Your task to perform on an android device: stop showing notifications on the lock screen Image 0: 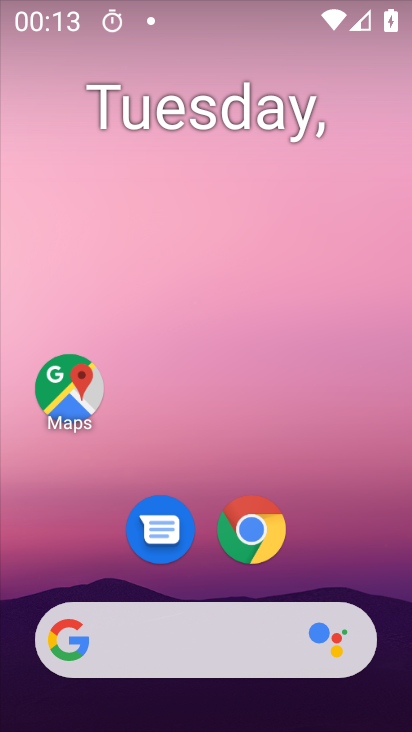
Step 0: drag from (347, 532) to (288, 59)
Your task to perform on an android device: stop showing notifications on the lock screen Image 1: 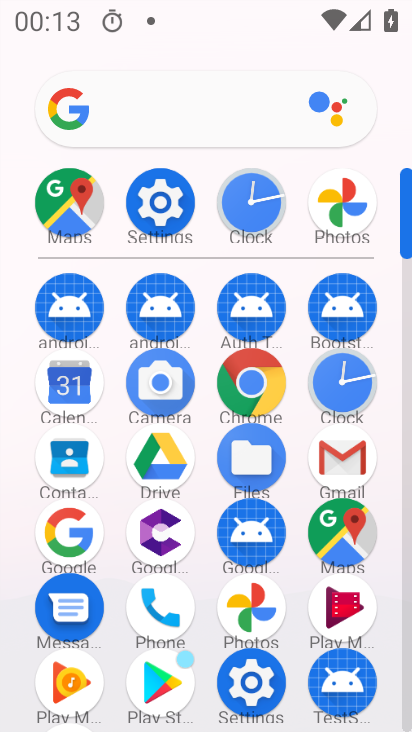
Step 1: click (172, 174)
Your task to perform on an android device: stop showing notifications on the lock screen Image 2: 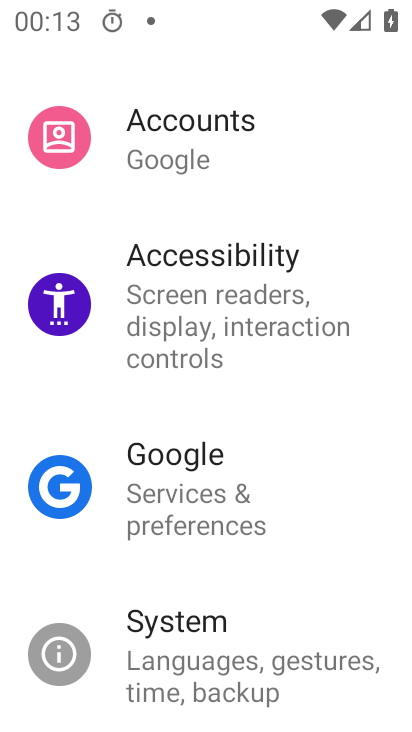
Step 2: drag from (184, 120) to (196, 678)
Your task to perform on an android device: stop showing notifications on the lock screen Image 3: 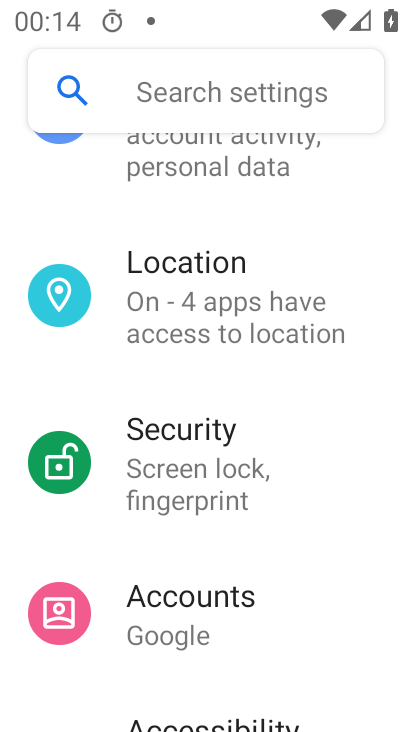
Step 3: drag from (239, 138) to (247, 647)
Your task to perform on an android device: stop showing notifications on the lock screen Image 4: 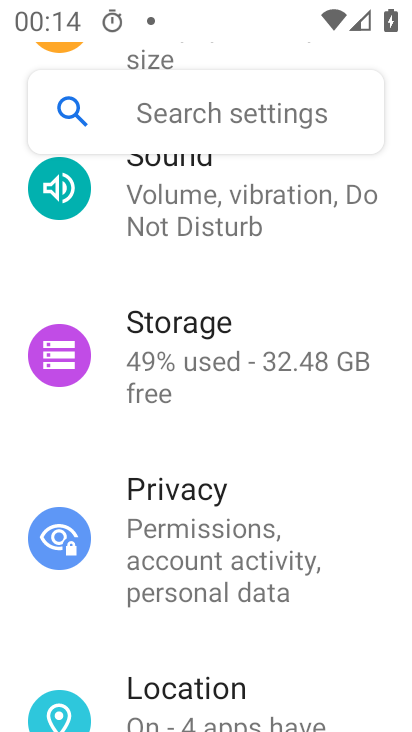
Step 4: drag from (256, 161) to (264, 679)
Your task to perform on an android device: stop showing notifications on the lock screen Image 5: 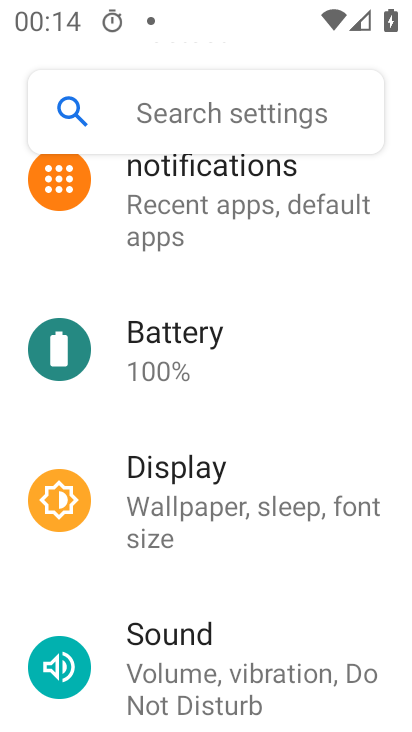
Step 5: drag from (207, 261) to (195, 571)
Your task to perform on an android device: stop showing notifications on the lock screen Image 6: 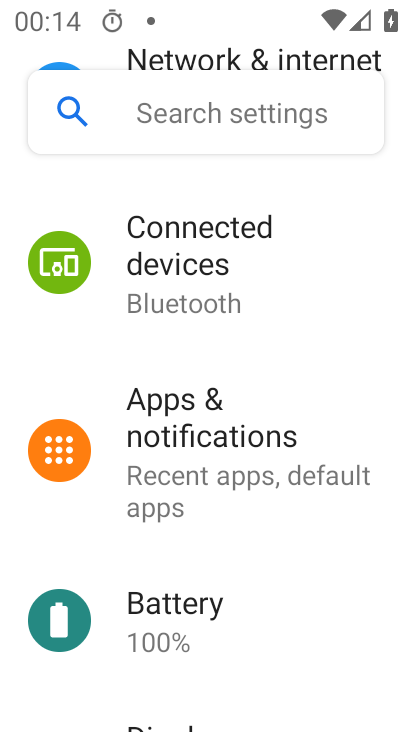
Step 6: click (178, 359)
Your task to perform on an android device: stop showing notifications on the lock screen Image 7: 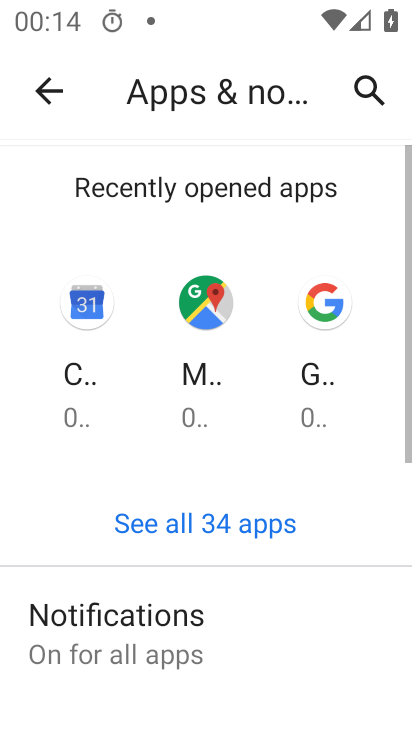
Step 7: click (149, 630)
Your task to perform on an android device: stop showing notifications on the lock screen Image 8: 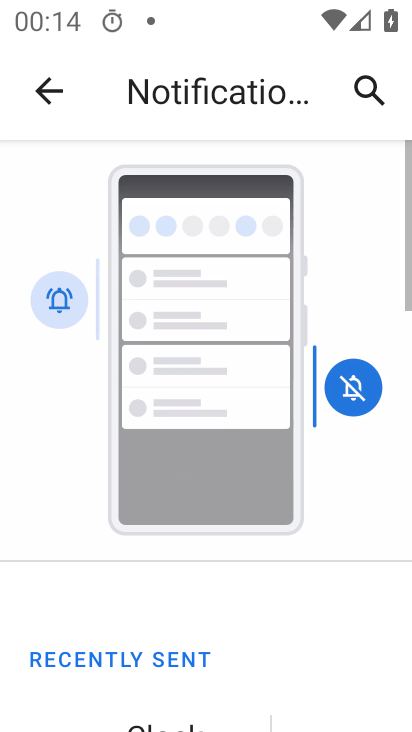
Step 8: drag from (234, 627) to (259, 81)
Your task to perform on an android device: stop showing notifications on the lock screen Image 9: 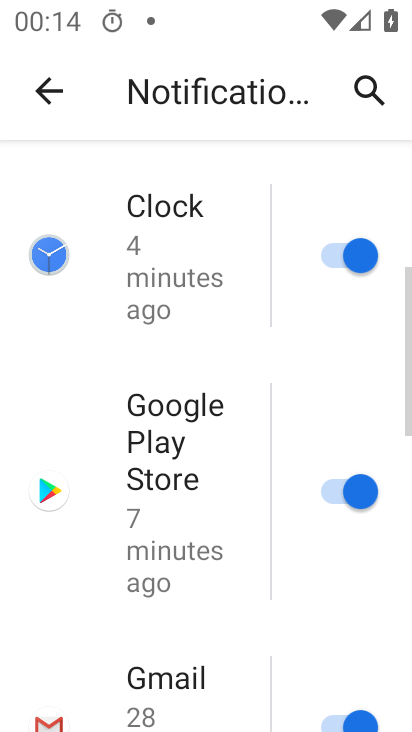
Step 9: drag from (266, 538) to (287, 60)
Your task to perform on an android device: stop showing notifications on the lock screen Image 10: 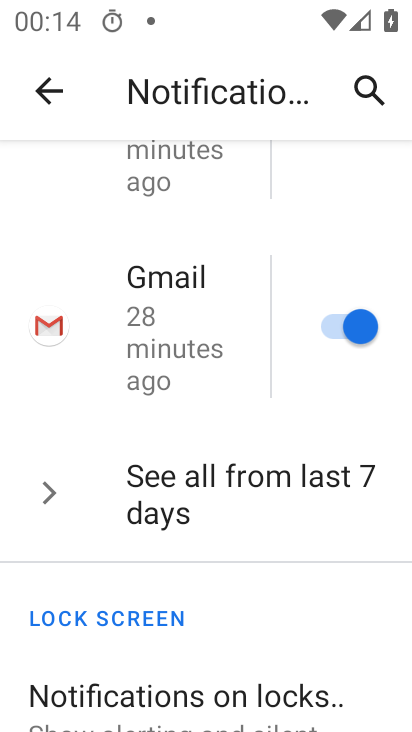
Step 10: click (215, 687)
Your task to perform on an android device: stop showing notifications on the lock screen Image 11: 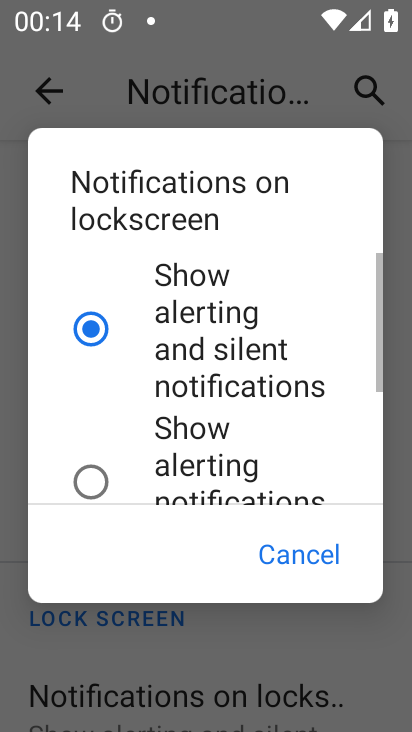
Step 11: drag from (248, 455) to (291, 217)
Your task to perform on an android device: stop showing notifications on the lock screen Image 12: 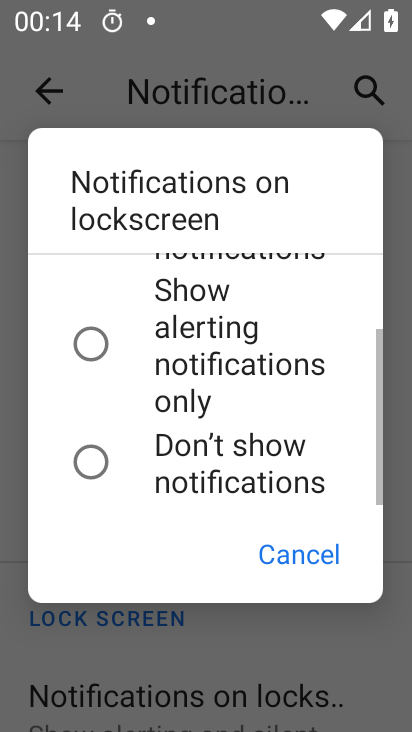
Step 12: click (260, 481)
Your task to perform on an android device: stop showing notifications on the lock screen Image 13: 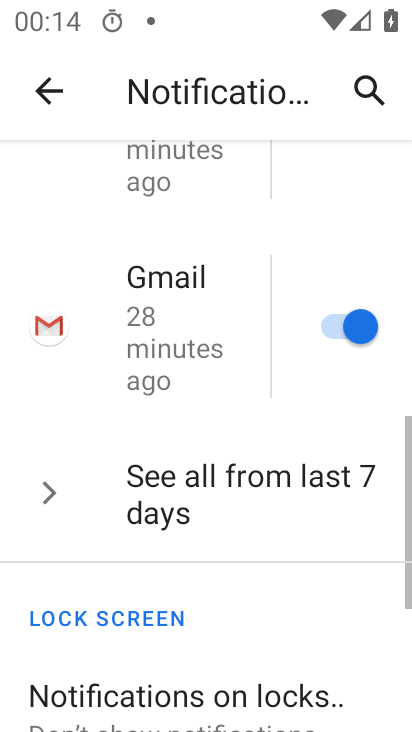
Step 13: task complete